Your task to perform on an android device: install app "Pluto TV - Live TV and Movies" Image 0: 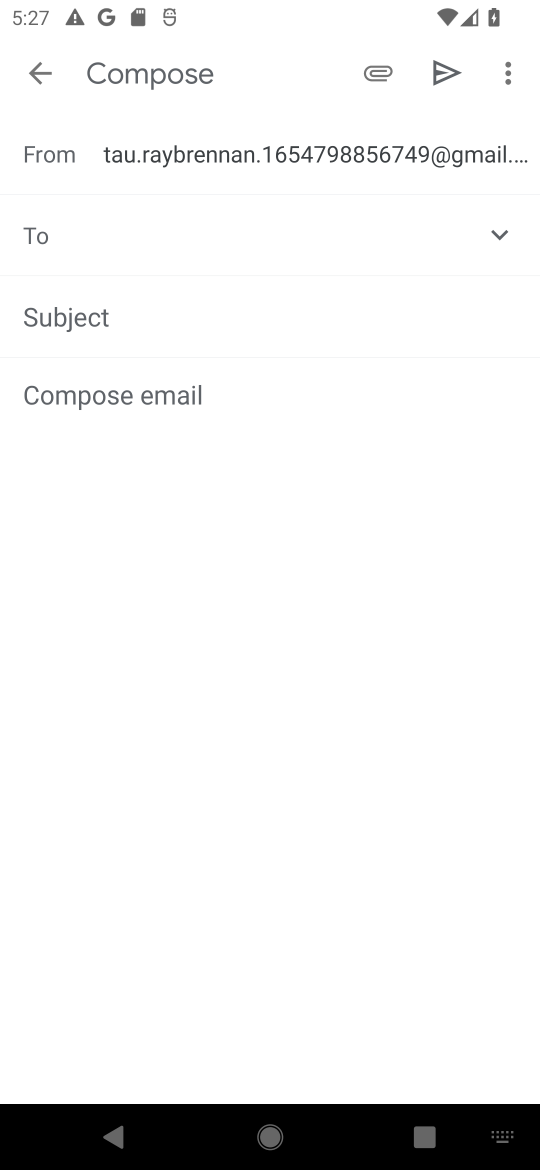
Step 0: press home button
Your task to perform on an android device: install app "Pluto TV - Live TV and Movies" Image 1: 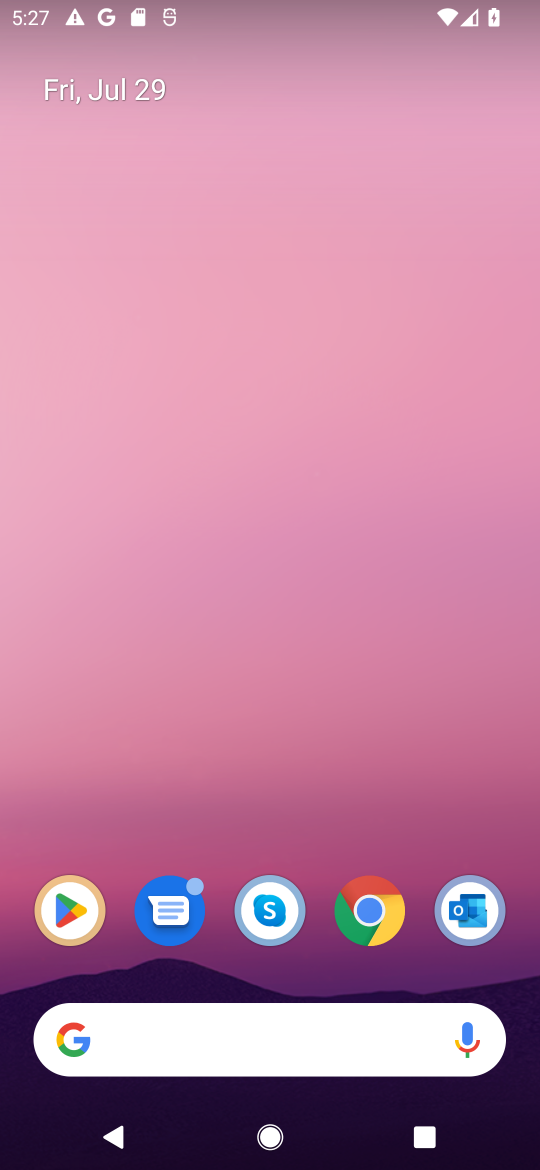
Step 1: drag from (252, 961) to (316, 267)
Your task to perform on an android device: install app "Pluto TV - Live TV and Movies" Image 2: 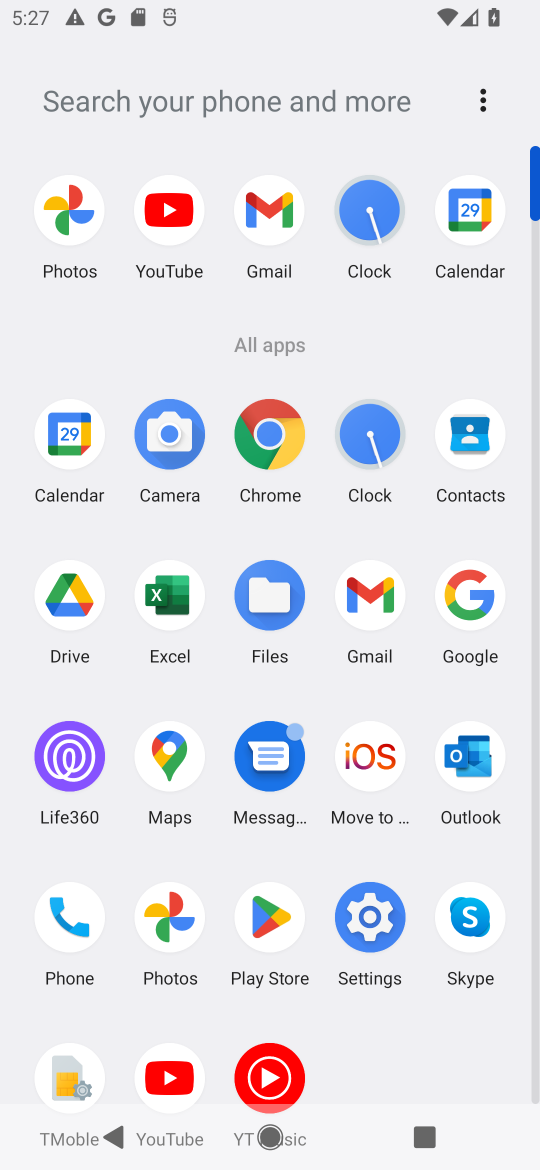
Step 2: click (257, 905)
Your task to perform on an android device: install app "Pluto TV - Live TV and Movies" Image 3: 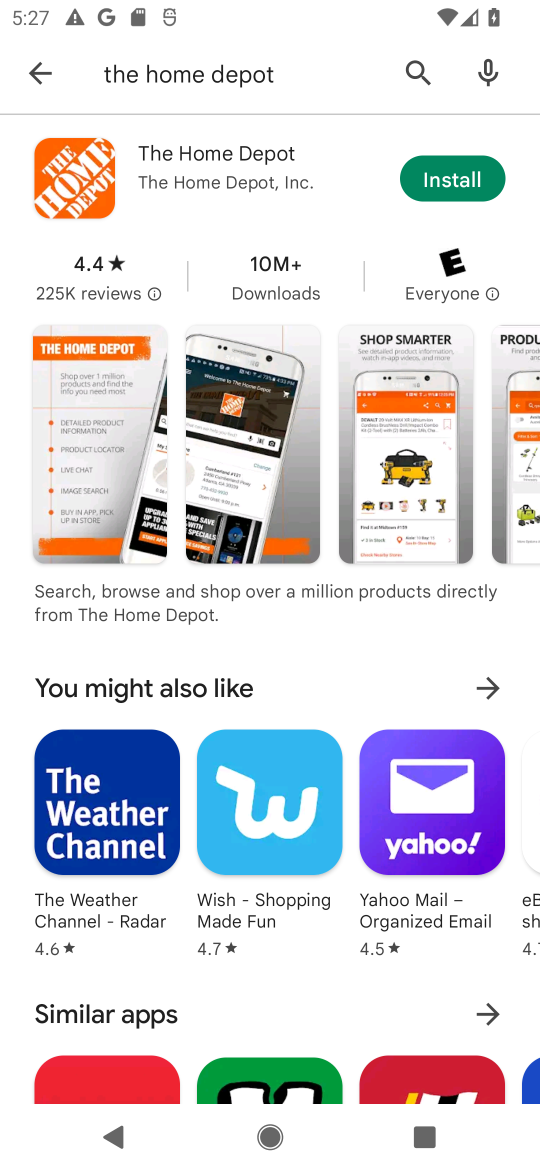
Step 3: click (414, 66)
Your task to perform on an android device: install app "Pluto TV - Live TV and Movies" Image 4: 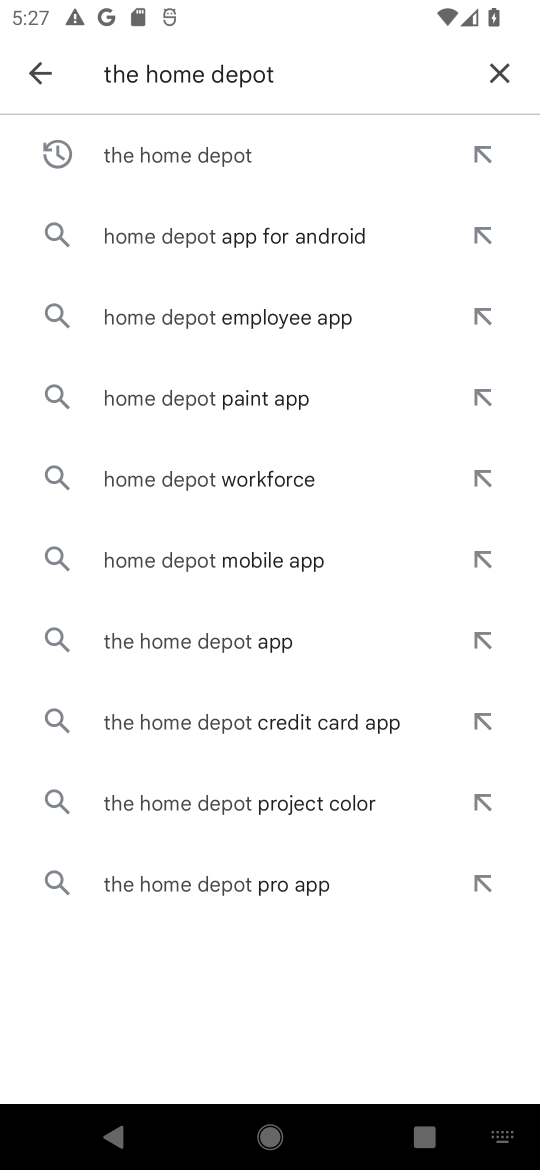
Step 4: click (489, 72)
Your task to perform on an android device: install app "Pluto TV - Live TV and Movies" Image 5: 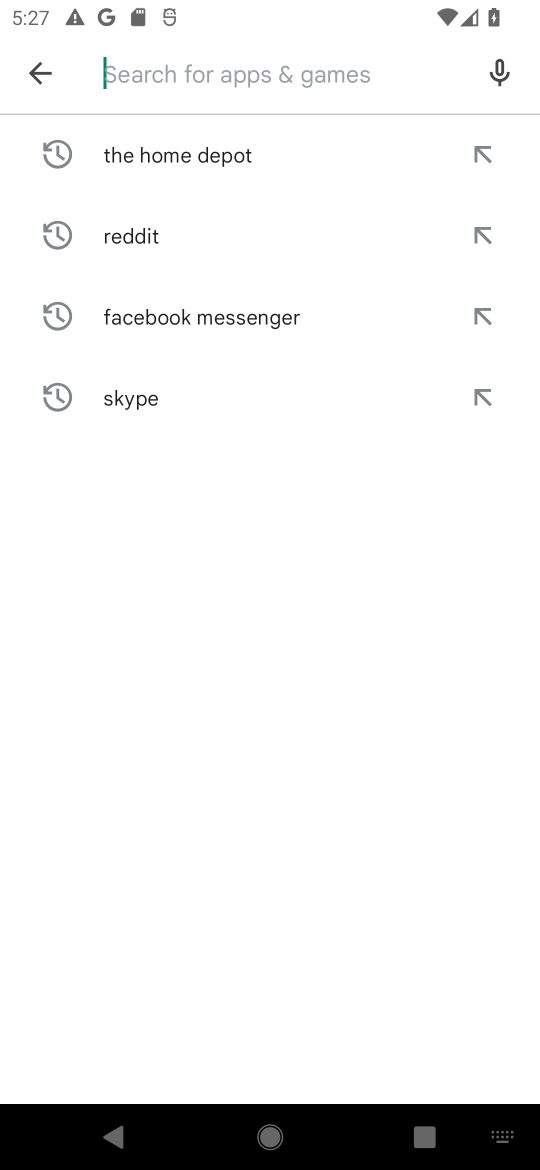
Step 5: type "Pluto TV - Live TV and Movies"
Your task to perform on an android device: install app "Pluto TV - Live TV and Movies" Image 6: 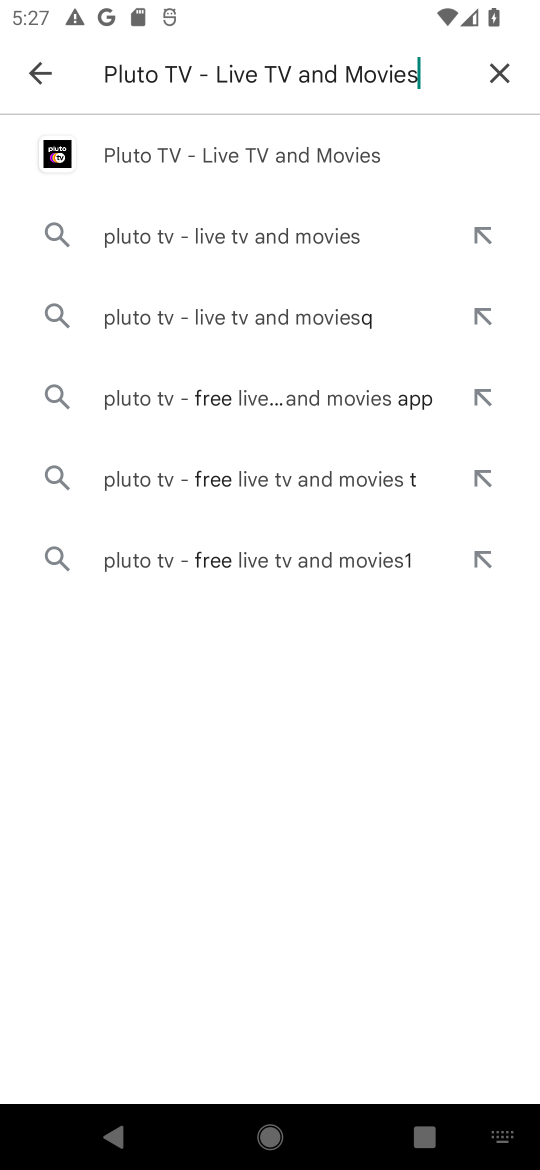
Step 6: click (158, 163)
Your task to perform on an android device: install app "Pluto TV - Live TV and Movies" Image 7: 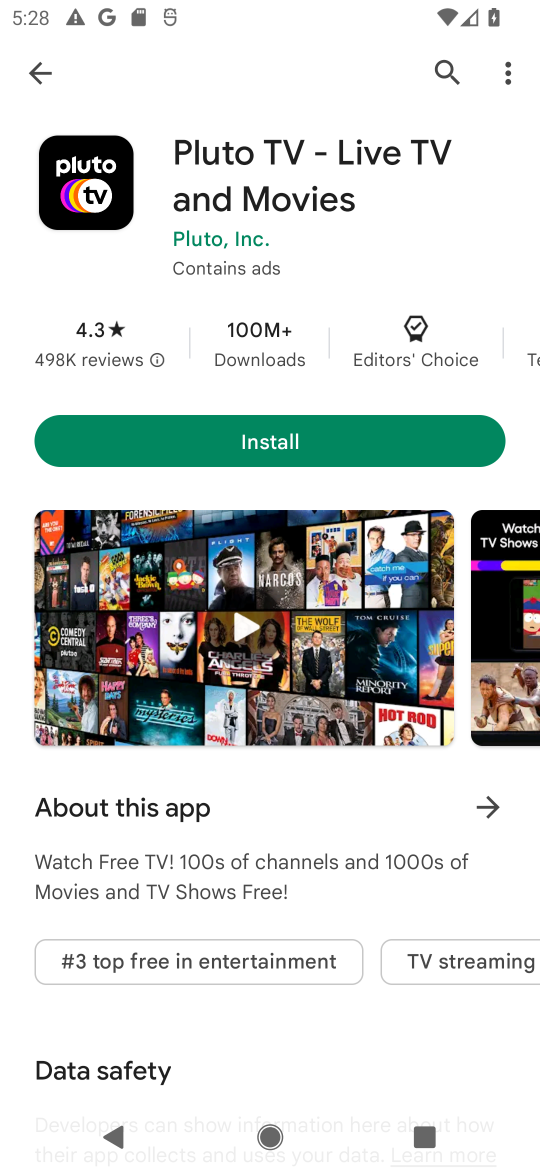
Step 7: click (266, 446)
Your task to perform on an android device: install app "Pluto TV - Live TV and Movies" Image 8: 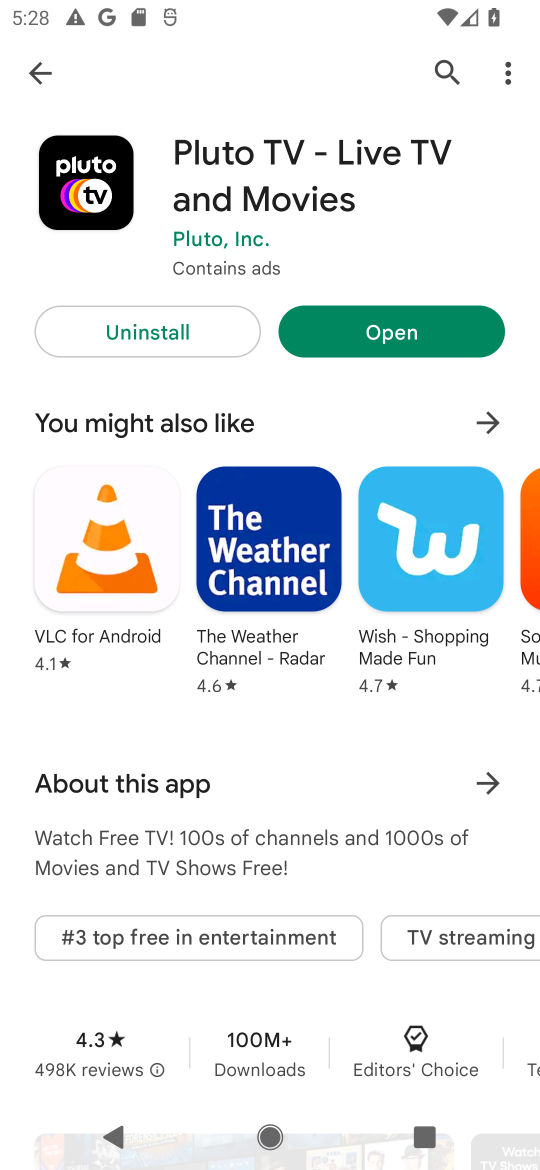
Step 8: click (390, 341)
Your task to perform on an android device: install app "Pluto TV - Live TV and Movies" Image 9: 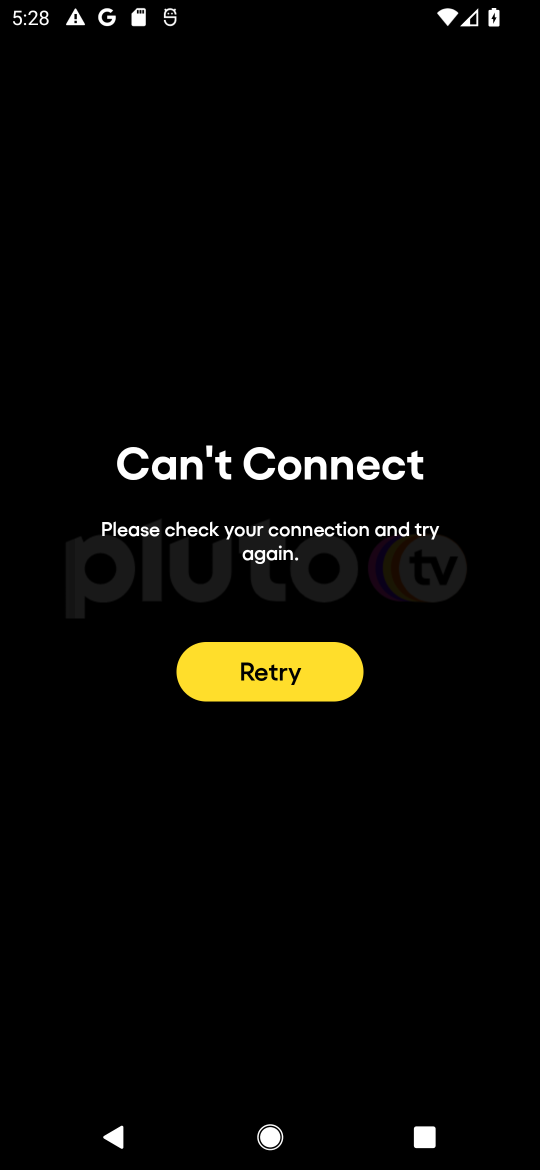
Step 9: task complete